Your task to perform on an android device: Show me the alarms in the clock app Image 0: 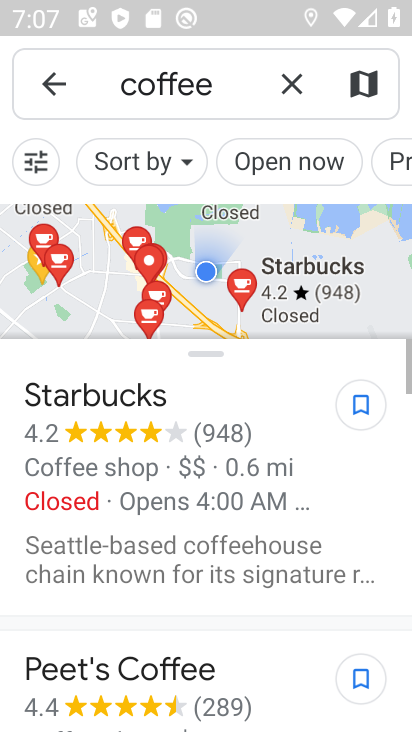
Step 0: press home button
Your task to perform on an android device: Show me the alarms in the clock app Image 1: 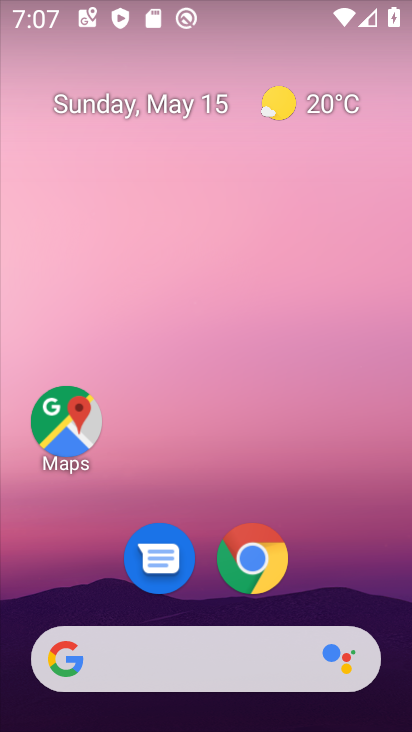
Step 1: drag from (326, 533) to (109, 21)
Your task to perform on an android device: Show me the alarms in the clock app Image 2: 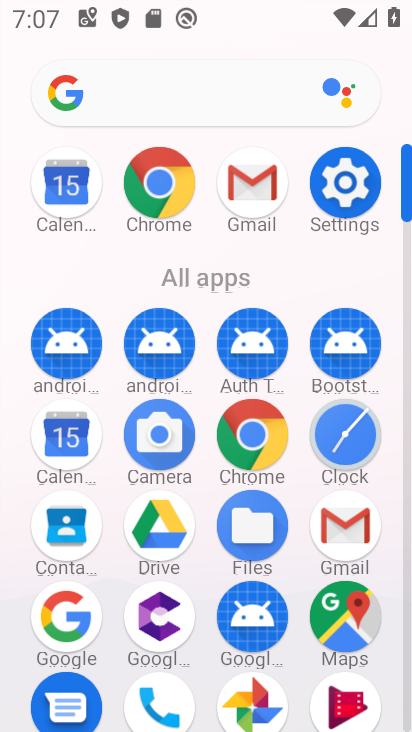
Step 2: click (355, 418)
Your task to perform on an android device: Show me the alarms in the clock app Image 3: 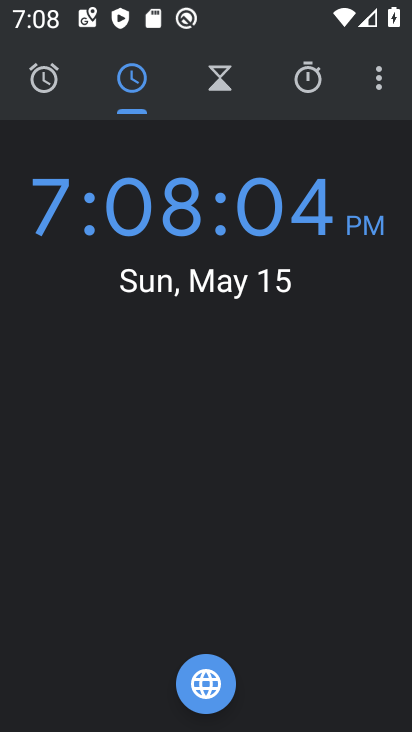
Step 3: click (38, 84)
Your task to perform on an android device: Show me the alarms in the clock app Image 4: 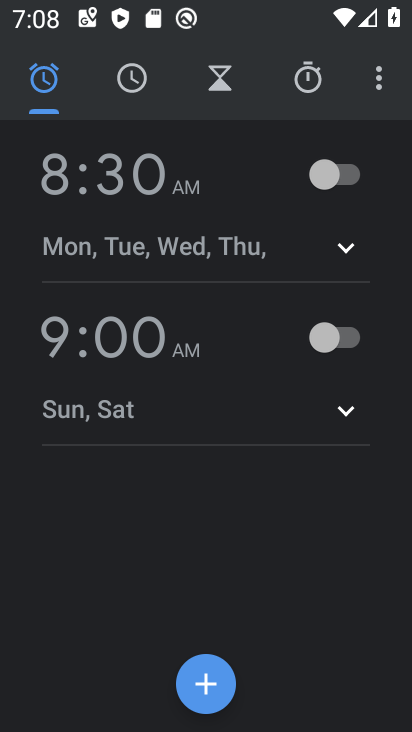
Step 4: task complete